Your task to perform on an android device: toggle wifi Image 0: 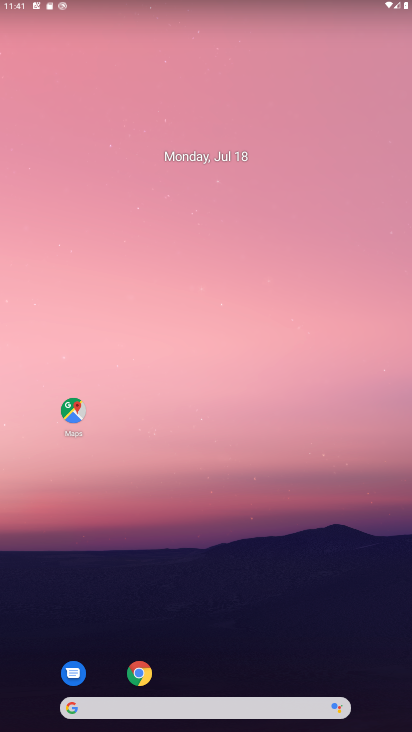
Step 0: drag from (324, 626) to (267, 132)
Your task to perform on an android device: toggle wifi Image 1: 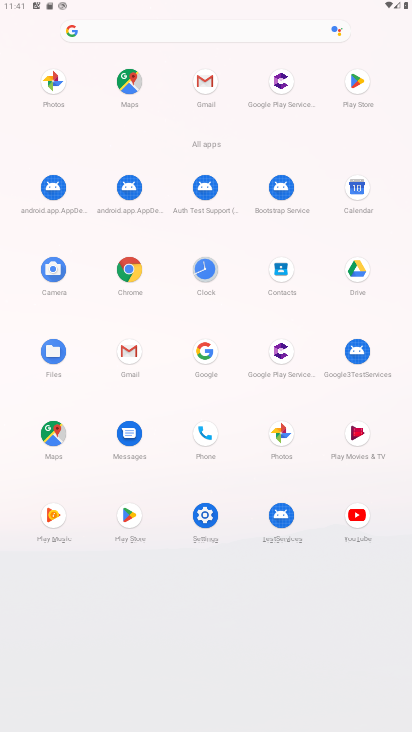
Step 1: click (209, 527)
Your task to perform on an android device: toggle wifi Image 2: 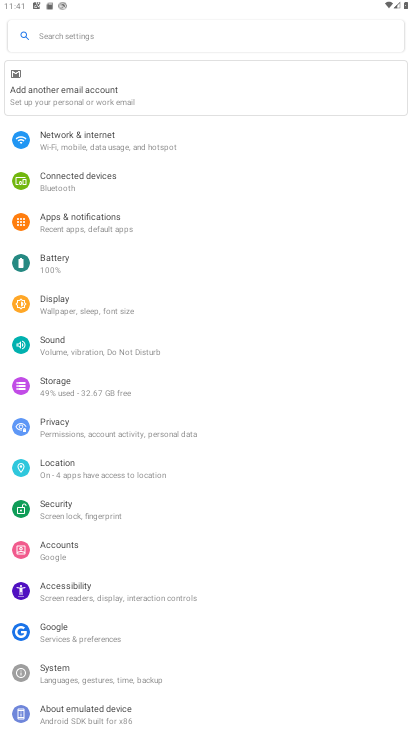
Step 2: click (130, 132)
Your task to perform on an android device: toggle wifi Image 3: 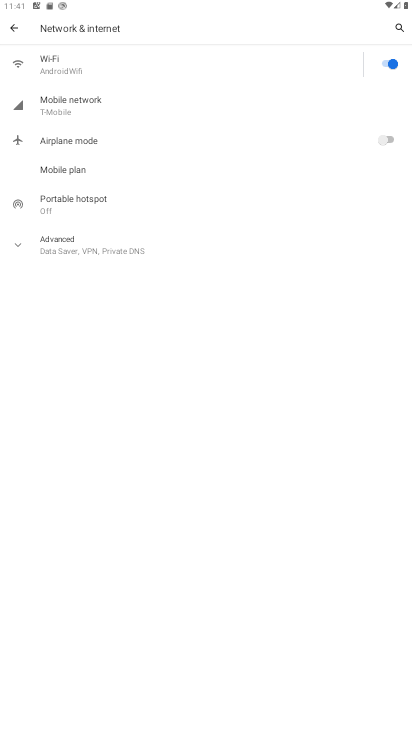
Step 3: click (389, 71)
Your task to perform on an android device: toggle wifi Image 4: 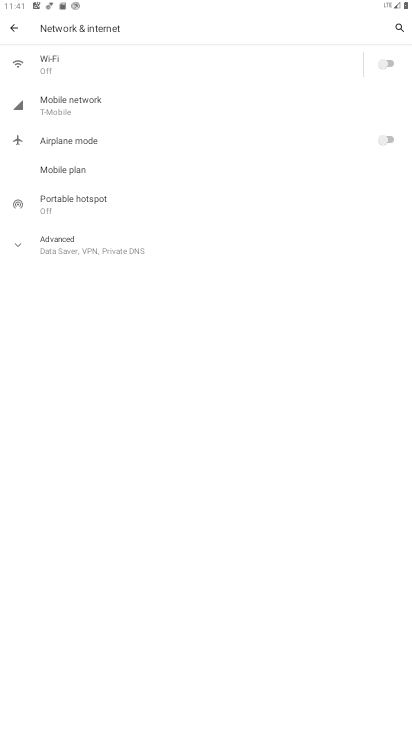
Step 4: task complete